Your task to perform on an android device: Open Android settings Image 0: 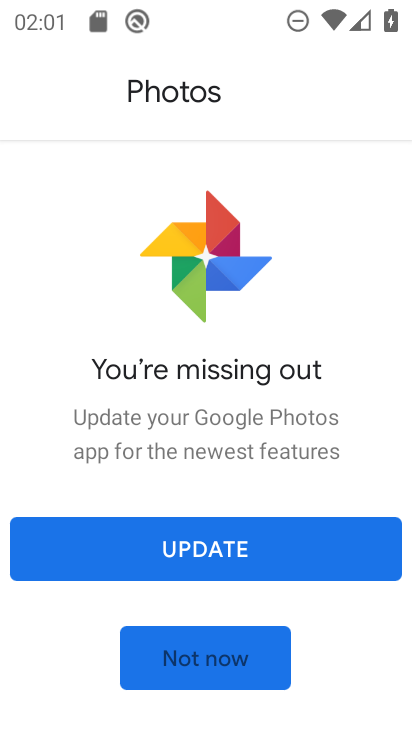
Step 0: press home button
Your task to perform on an android device: Open Android settings Image 1: 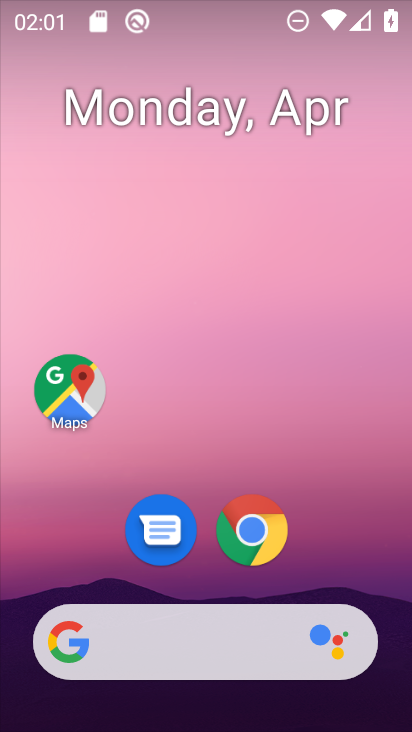
Step 1: drag from (370, 570) to (221, 6)
Your task to perform on an android device: Open Android settings Image 2: 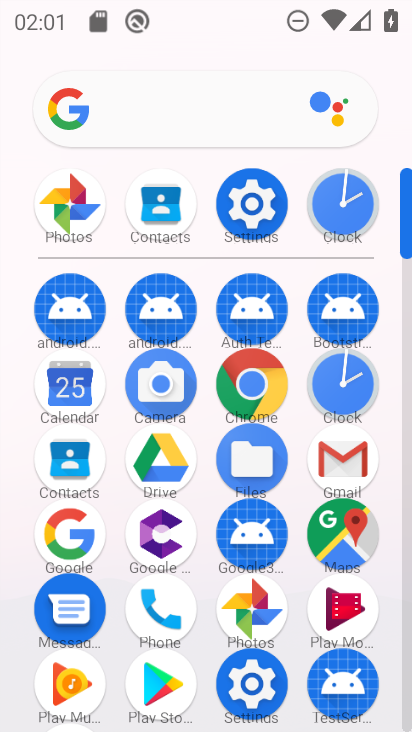
Step 2: click (246, 215)
Your task to perform on an android device: Open Android settings Image 3: 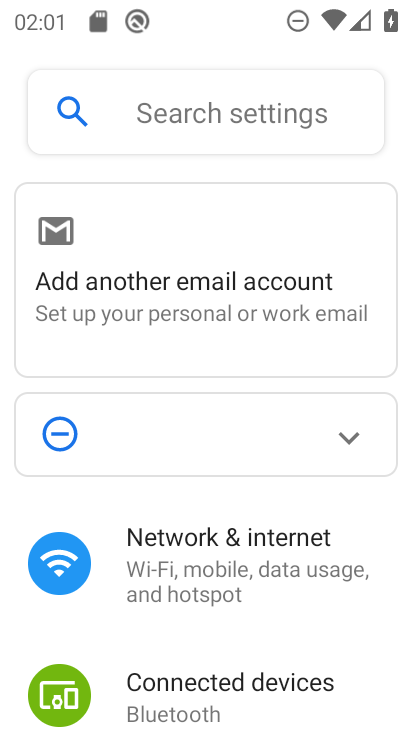
Step 3: drag from (305, 611) to (272, 4)
Your task to perform on an android device: Open Android settings Image 4: 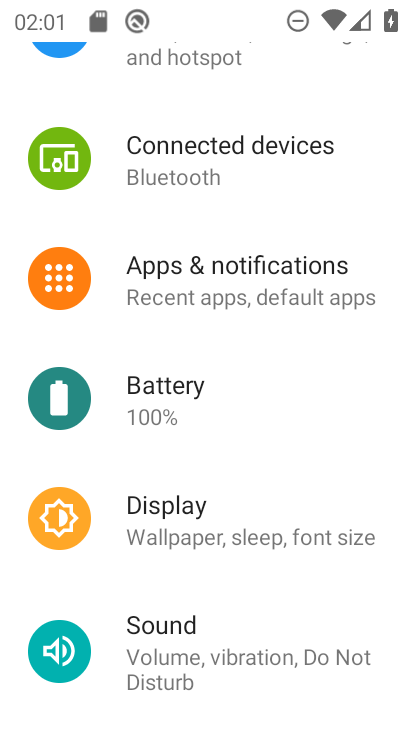
Step 4: drag from (238, 516) to (234, 15)
Your task to perform on an android device: Open Android settings Image 5: 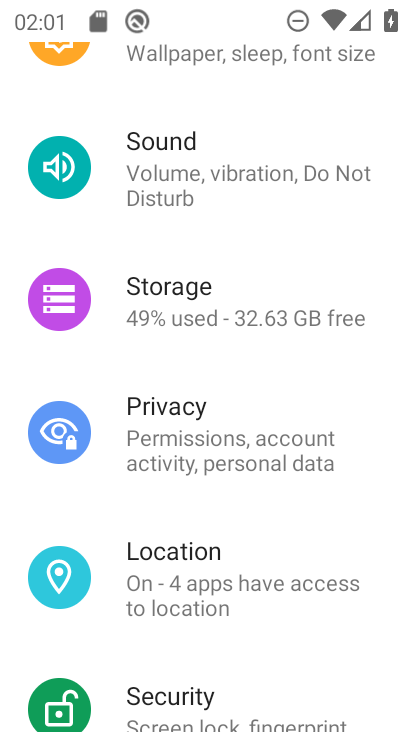
Step 5: drag from (268, 633) to (224, 71)
Your task to perform on an android device: Open Android settings Image 6: 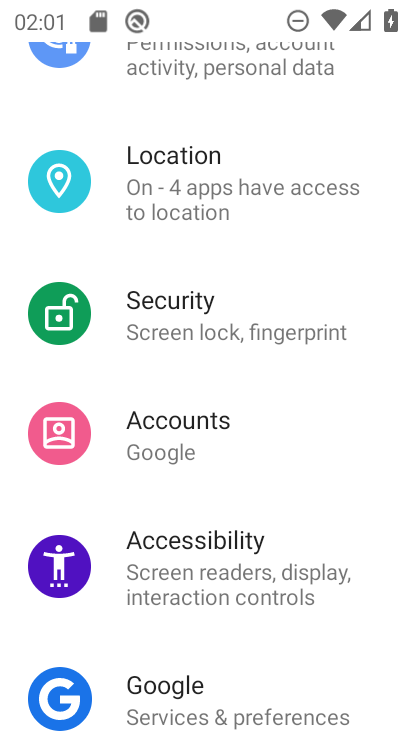
Step 6: drag from (278, 612) to (232, 38)
Your task to perform on an android device: Open Android settings Image 7: 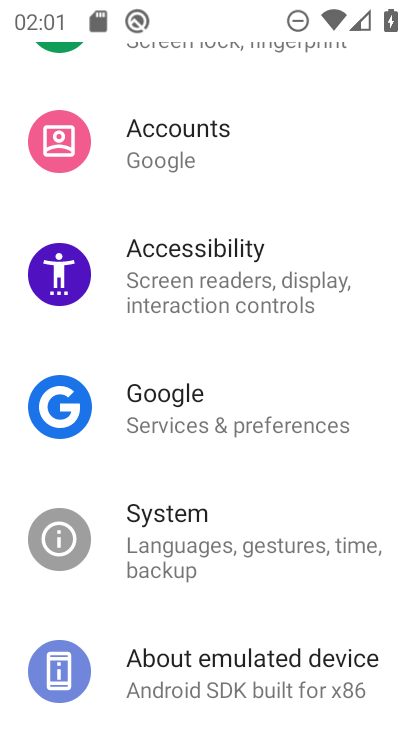
Step 7: drag from (276, 517) to (253, 58)
Your task to perform on an android device: Open Android settings Image 8: 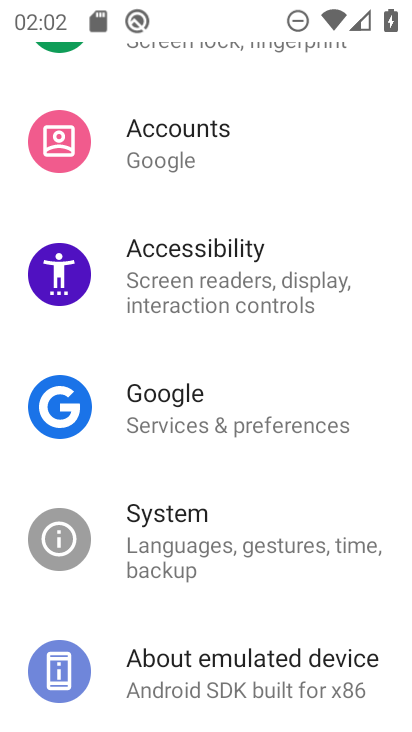
Step 8: click (237, 658)
Your task to perform on an android device: Open Android settings Image 9: 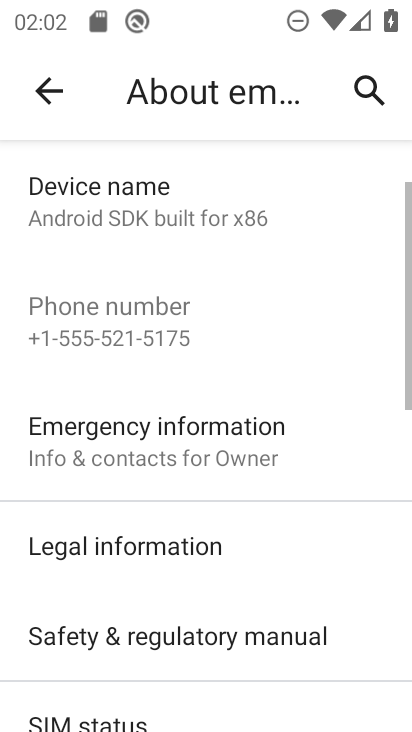
Step 9: task complete